Your task to perform on an android device: When is my next appointment? Image 0: 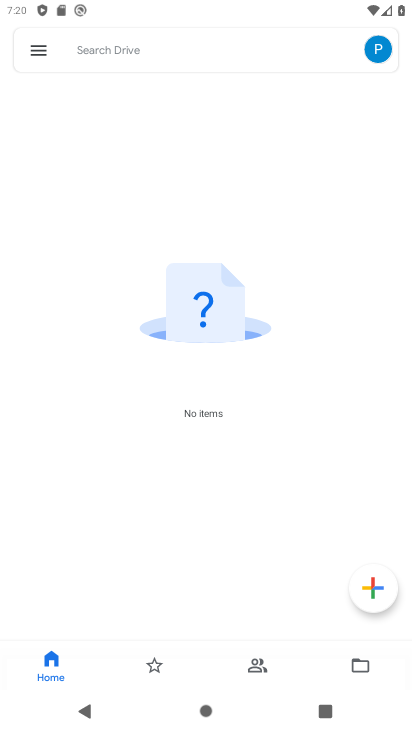
Step 0: press home button
Your task to perform on an android device: When is my next appointment? Image 1: 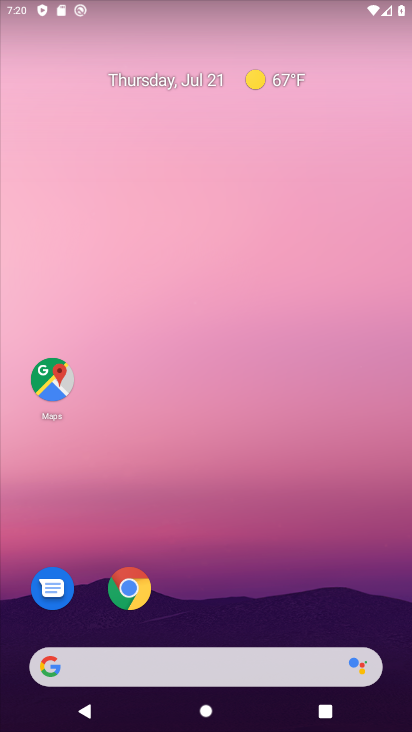
Step 1: drag from (219, 556) to (310, 79)
Your task to perform on an android device: When is my next appointment? Image 2: 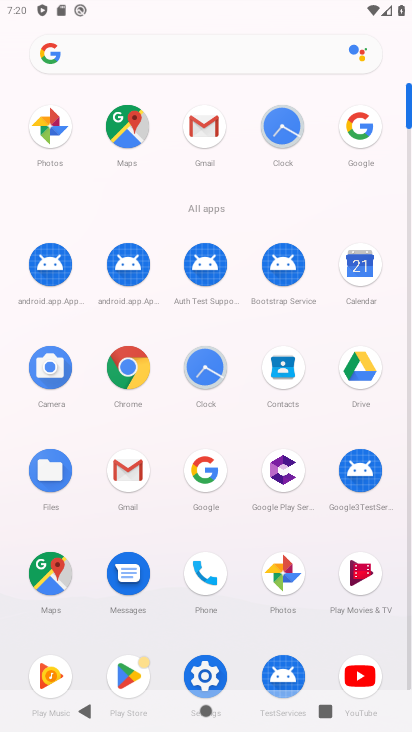
Step 2: click (369, 268)
Your task to perform on an android device: When is my next appointment? Image 3: 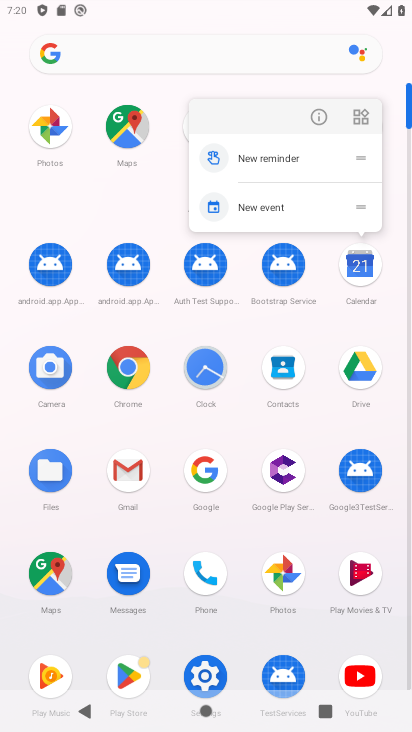
Step 3: click (357, 262)
Your task to perform on an android device: When is my next appointment? Image 4: 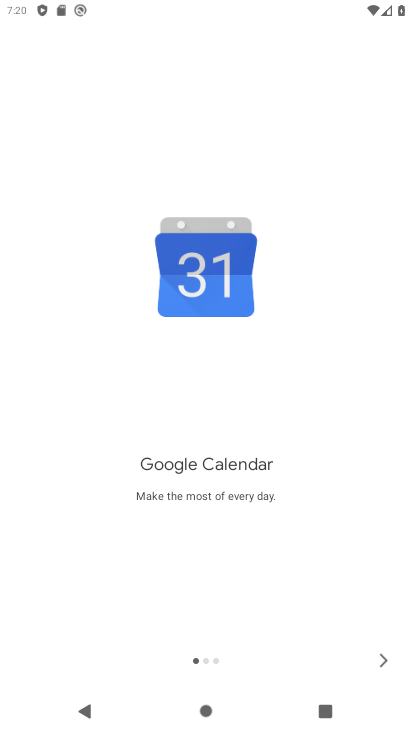
Step 4: click (385, 669)
Your task to perform on an android device: When is my next appointment? Image 5: 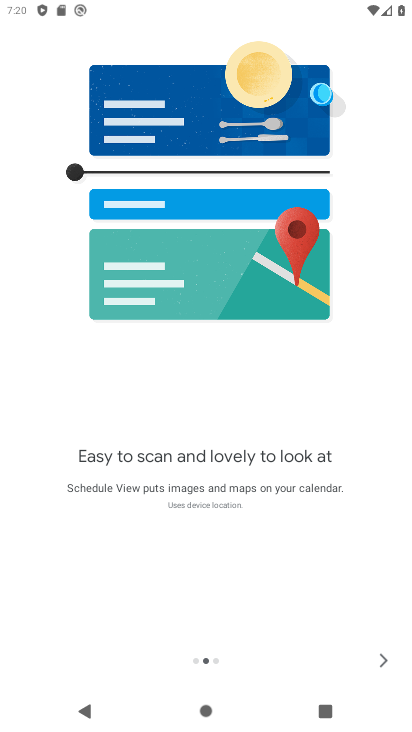
Step 5: click (382, 661)
Your task to perform on an android device: When is my next appointment? Image 6: 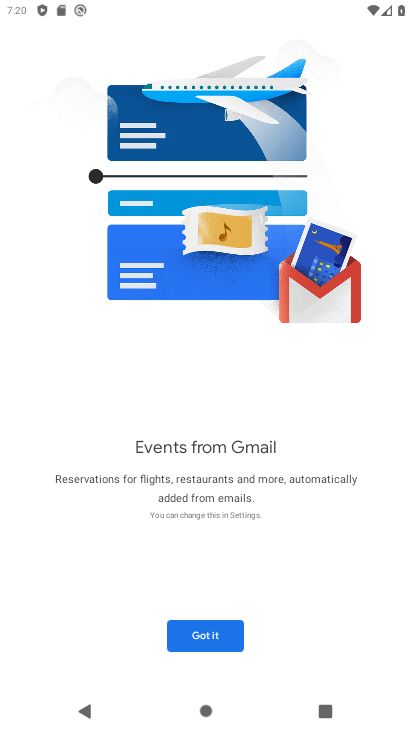
Step 6: click (221, 636)
Your task to perform on an android device: When is my next appointment? Image 7: 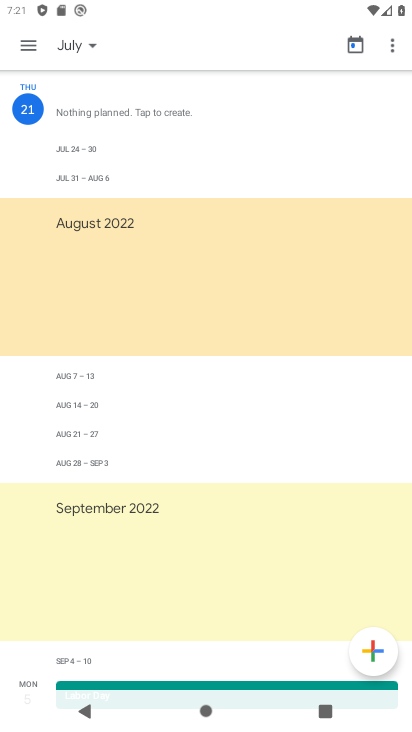
Step 7: click (38, 39)
Your task to perform on an android device: When is my next appointment? Image 8: 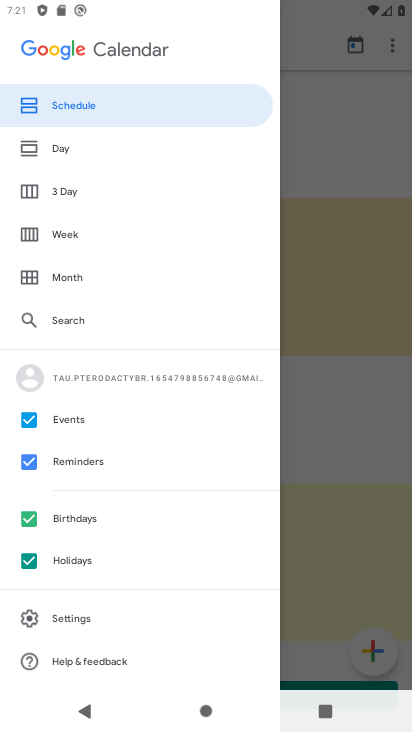
Step 8: click (60, 106)
Your task to perform on an android device: When is my next appointment? Image 9: 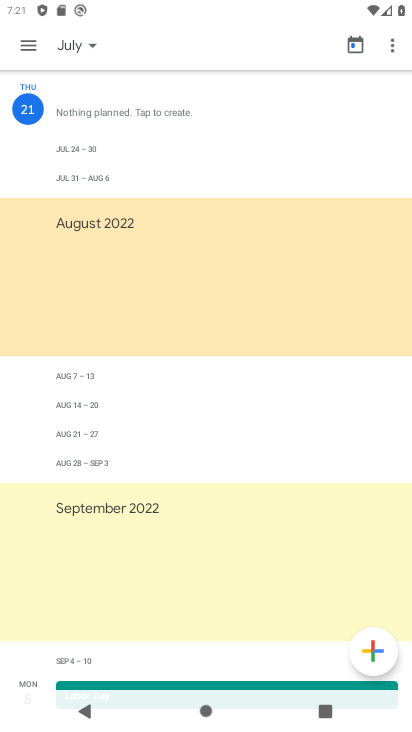
Step 9: task complete